Your task to perform on an android device: turn smart compose on in the gmail app Image 0: 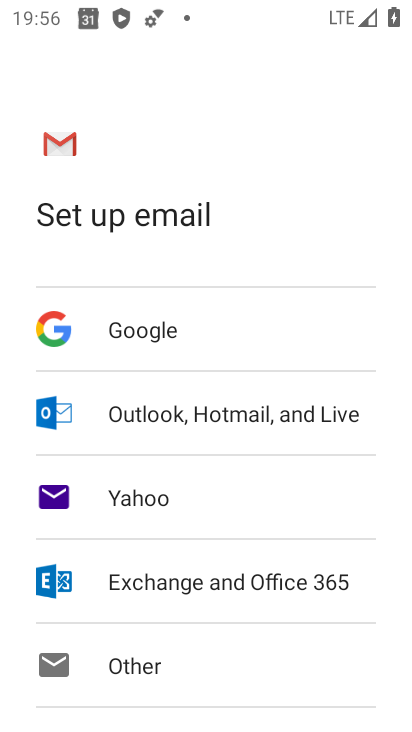
Step 0: press home button
Your task to perform on an android device: turn smart compose on in the gmail app Image 1: 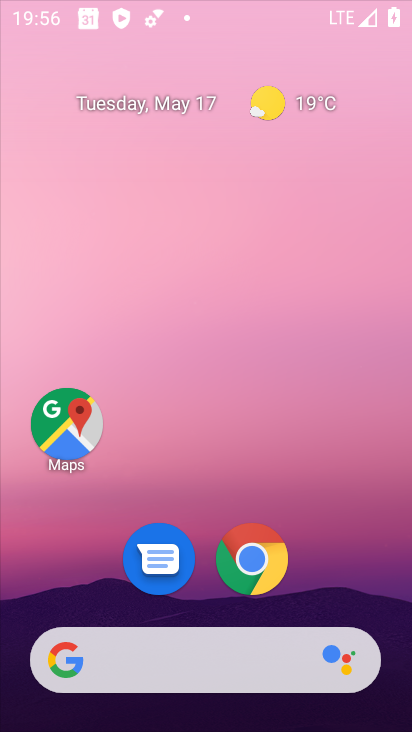
Step 1: drag from (182, 658) to (298, 73)
Your task to perform on an android device: turn smart compose on in the gmail app Image 2: 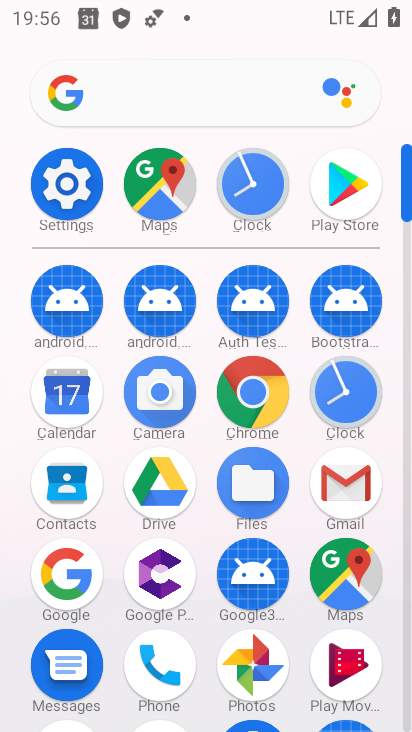
Step 2: click (316, 489)
Your task to perform on an android device: turn smart compose on in the gmail app Image 3: 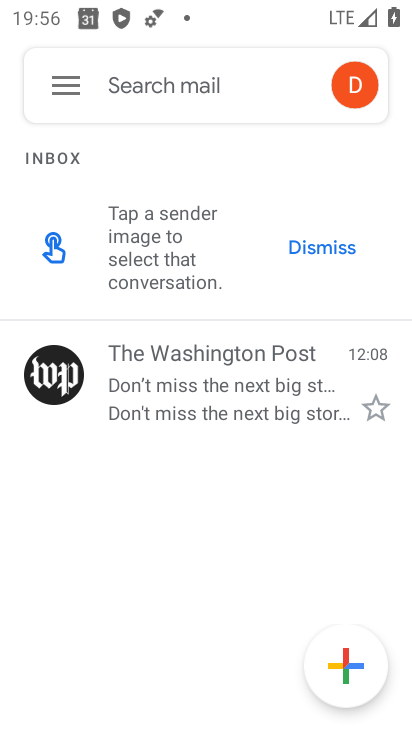
Step 3: click (61, 102)
Your task to perform on an android device: turn smart compose on in the gmail app Image 4: 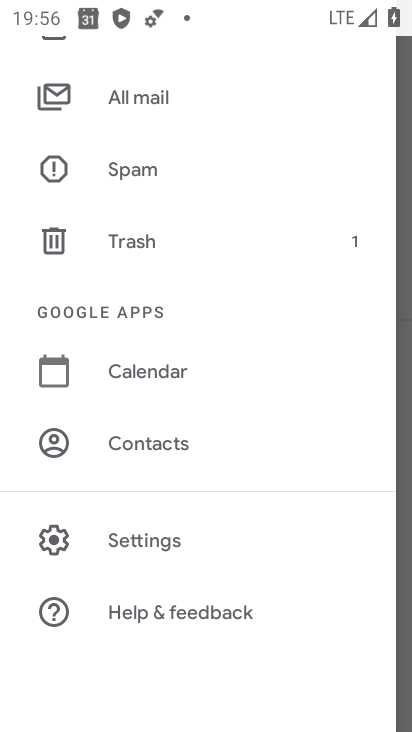
Step 4: click (117, 550)
Your task to perform on an android device: turn smart compose on in the gmail app Image 5: 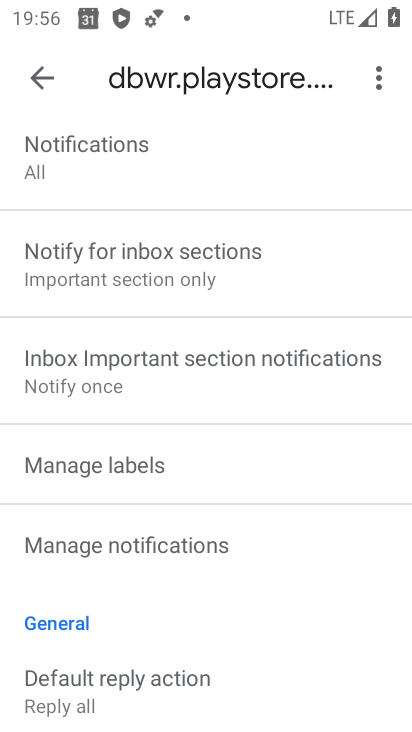
Step 5: task complete